Your task to perform on an android device: toggle data saver in the chrome app Image 0: 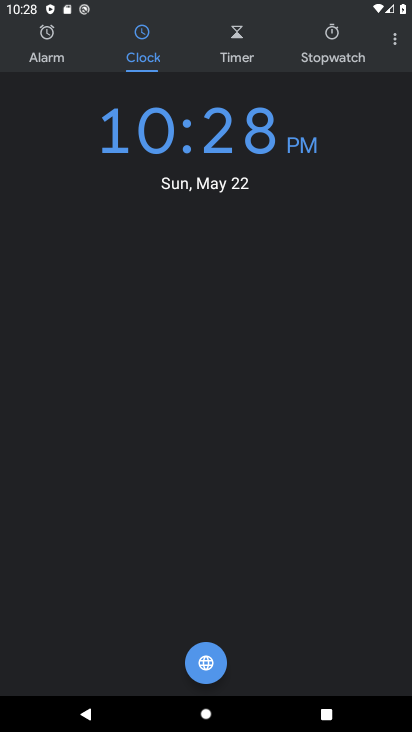
Step 0: press home button
Your task to perform on an android device: toggle data saver in the chrome app Image 1: 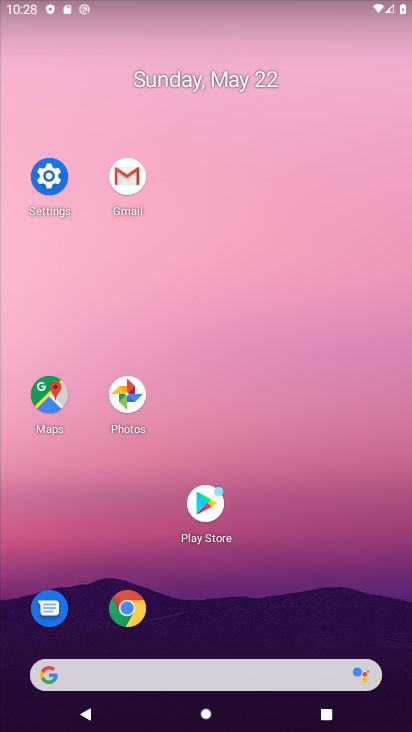
Step 1: click (113, 625)
Your task to perform on an android device: toggle data saver in the chrome app Image 2: 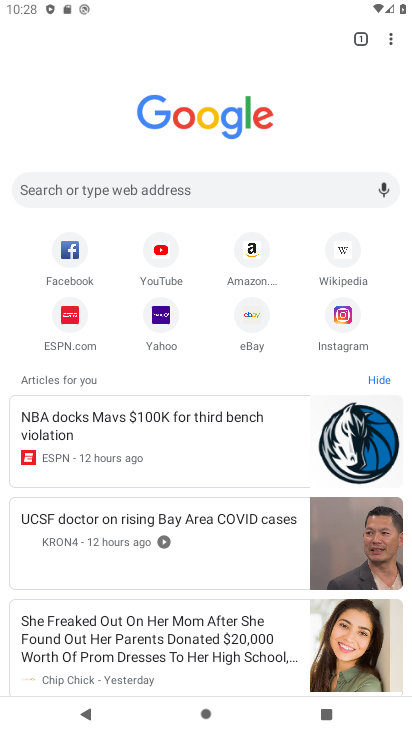
Step 2: click (400, 50)
Your task to perform on an android device: toggle data saver in the chrome app Image 3: 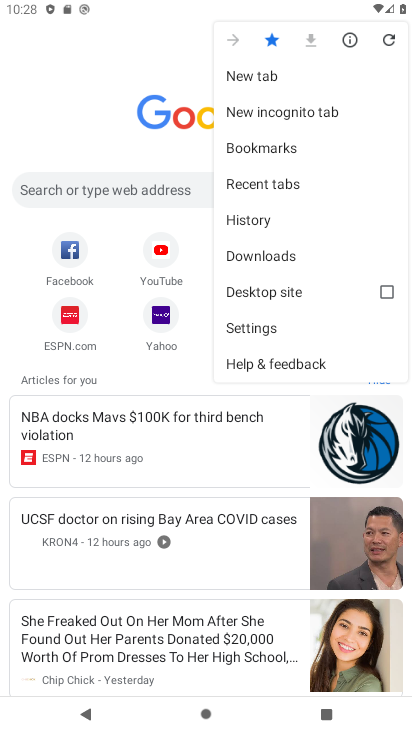
Step 3: click (264, 318)
Your task to perform on an android device: toggle data saver in the chrome app Image 4: 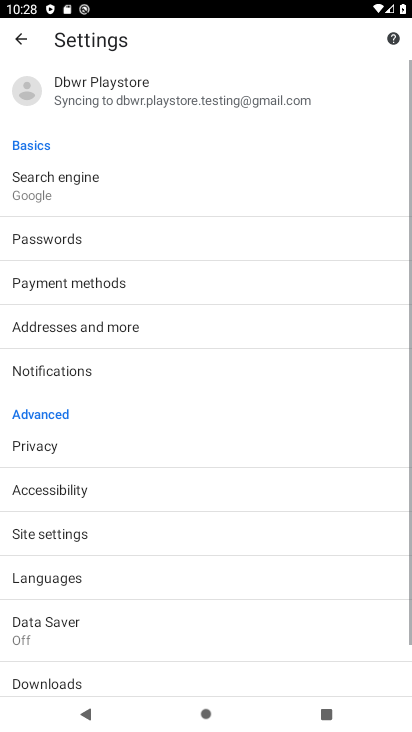
Step 4: drag from (191, 551) to (185, 191)
Your task to perform on an android device: toggle data saver in the chrome app Image 5: 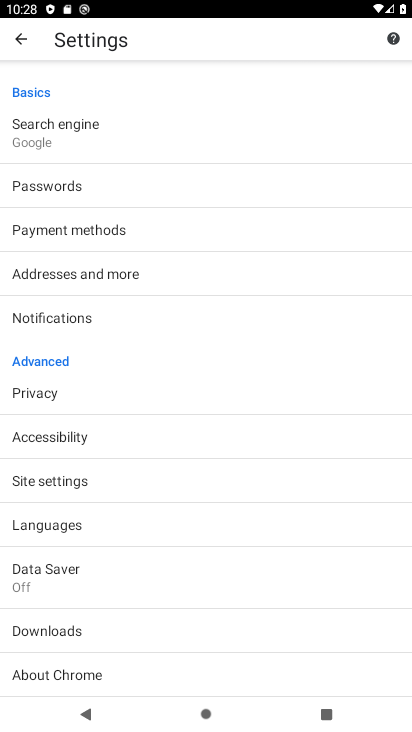
Step 5: click (115, 578)
Your task to perform on an android device: toggle data saver in the chrome app Image 6: 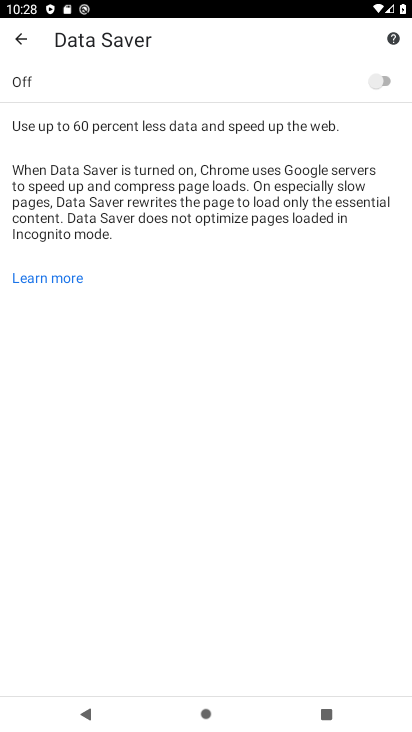
Step 6: click (371, 70)
Your task to perform on an android device: toggle data saver in the chrome app Image 7: 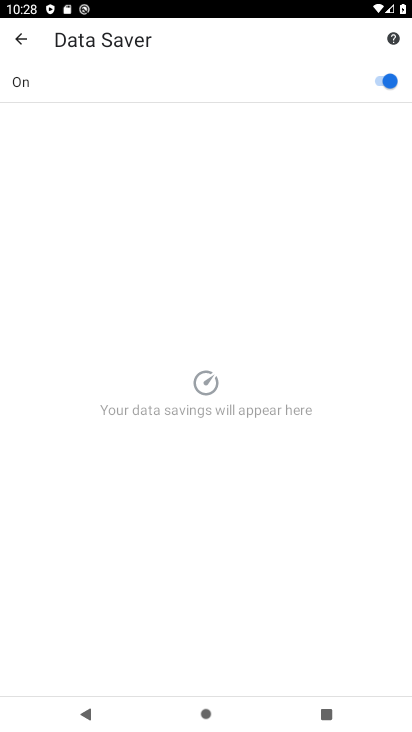
Step 7: task complete